Your task to perform on an android device: Is it going to rain today? Image 0: 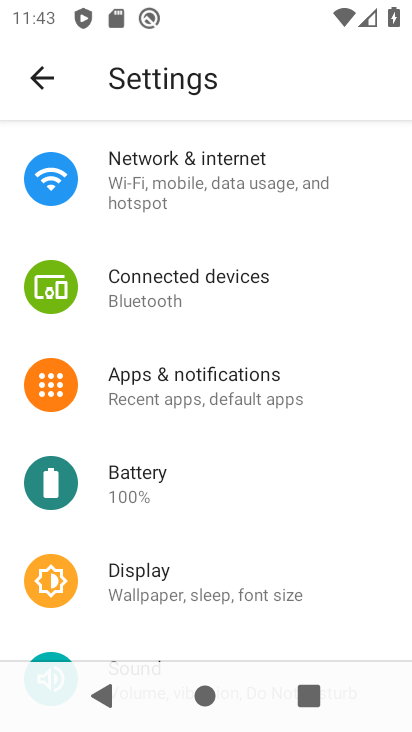
Step 0: press home button
Your task to perform on an android device: Is it going to rain today? Image 1: 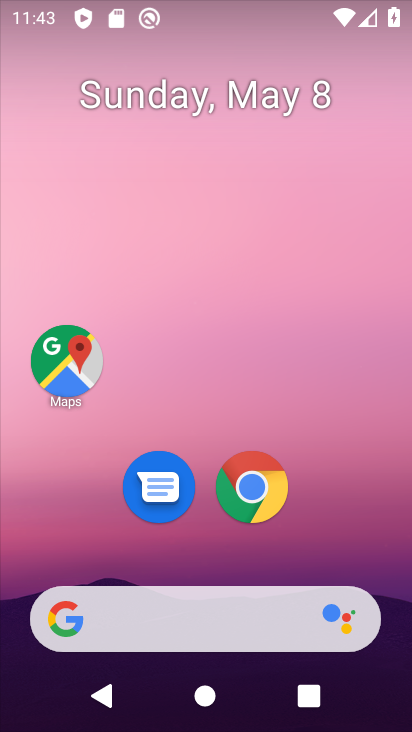
Step 1: click (260, 509)
Your task to perform on an android device: Is it going to rain today? Image 2: 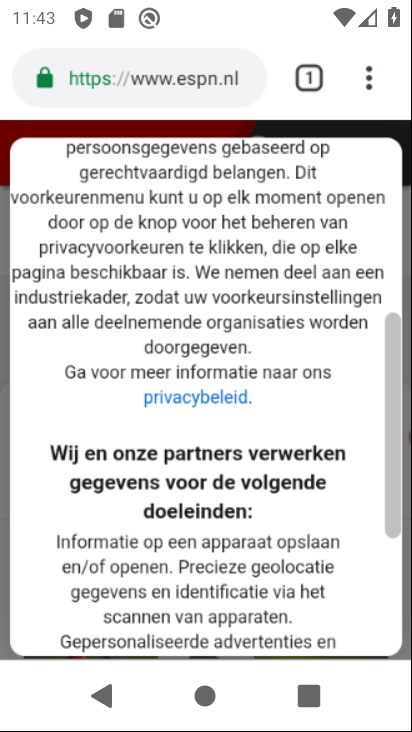
Step 2: click (166, 87)
Your task to perform on an android device: Is it going to rain today? Image 3: 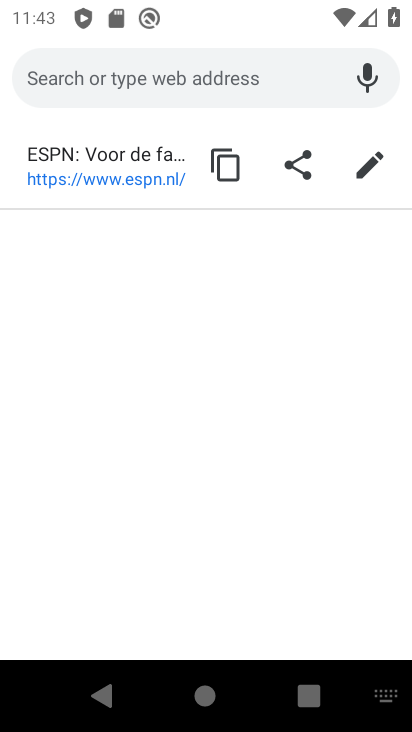
Step 3: type "is it going to rain today?"
Your task to perform on an android device: Is it going to rain today? Image 4: 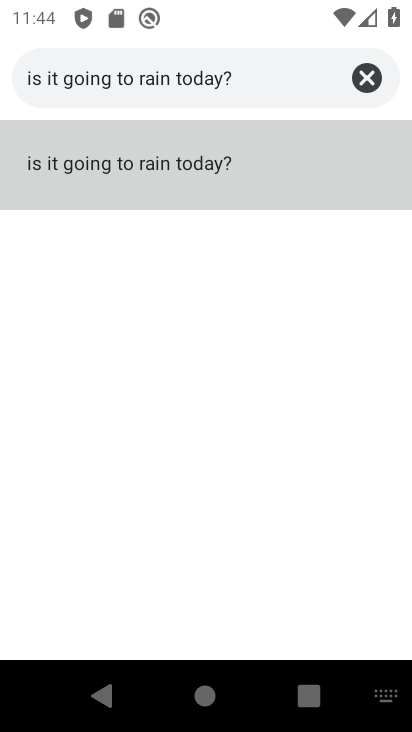
Step 4: click (140, 187)
Your task to perform on an android device: Is it going to rain today? Image 5: 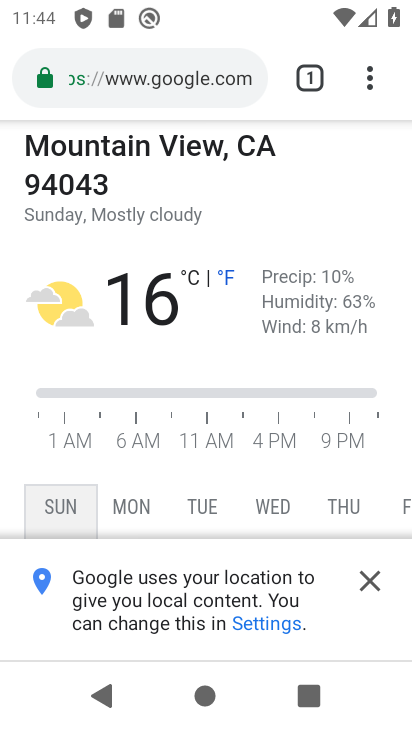
Step 5: click (371, 583)
Your task to perform on an android device: Is it going to rain today? Image 6: 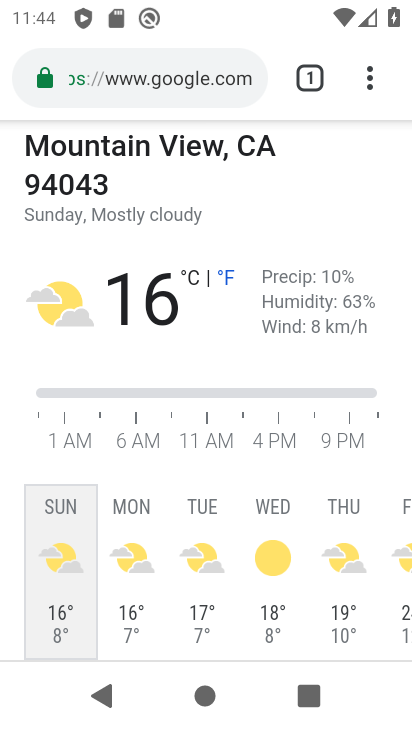
Step 6: task complete